Your task to perform on an android device: toggle priority inbox in the gmail app Image 0: 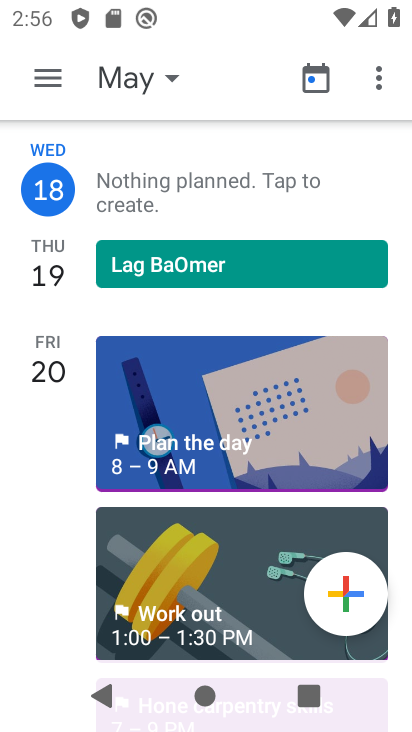
Step 0: press home button
Your task to perform on an android device: toggle priority inbox in the gmail app Image 1: 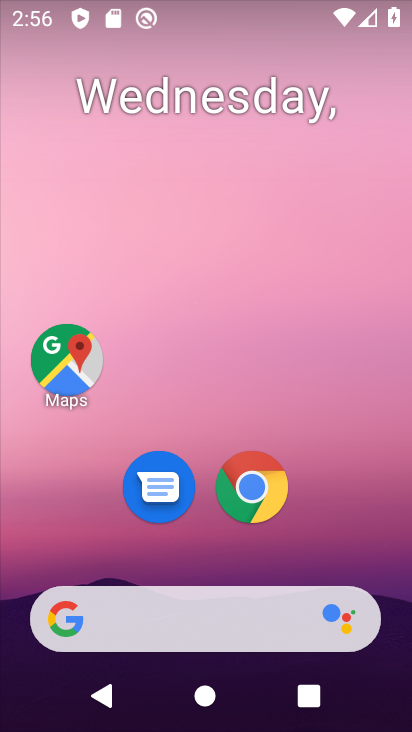
Step 1: drag from (366, 540) to (363, 187)
Your task to perform on an android device: toggle priority inbox in the gmail app Image 2: 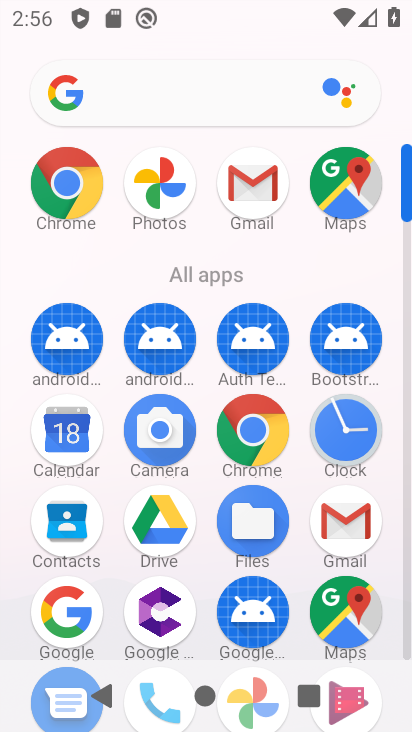
Step 2: click (340, 506)
Your task to perform on an android device: toggle priority inbox in the gmail app Image 3: 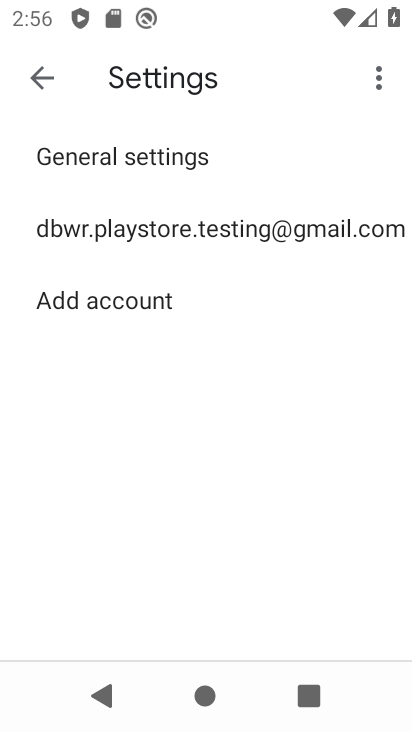
Step 3: click (281, 243)
Your task to perform on an android device: toggle priority inbox in the gmail app Image 4: 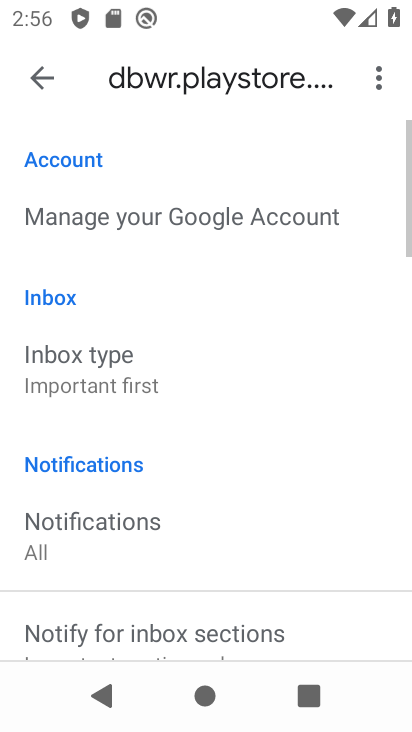
Step 4: drag from (301, 535) to (304, 406)
Your task to perform on an android device: toggle priority inbox in the gmail app Image 5: 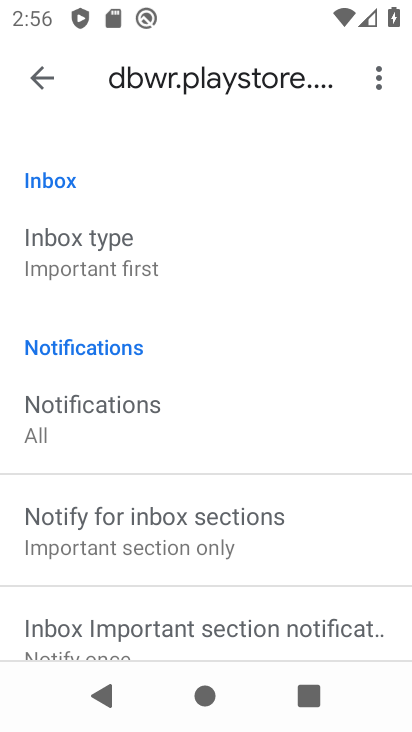
Step 5: drag from (297, 558) to (304, 407)
Your task to perform on an android device: toggle priority inbox in the gmail app Image 6: 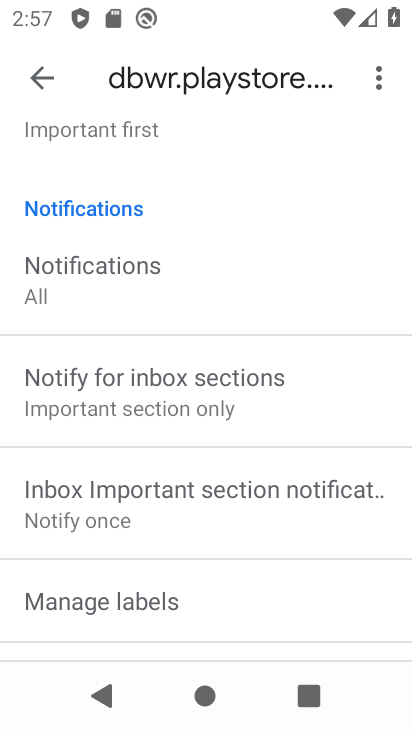
Step 6: drag from (328, 299) to (308, 475)
Your task to perform on an android device: toggle priority inbox in the gmail app Image 7: 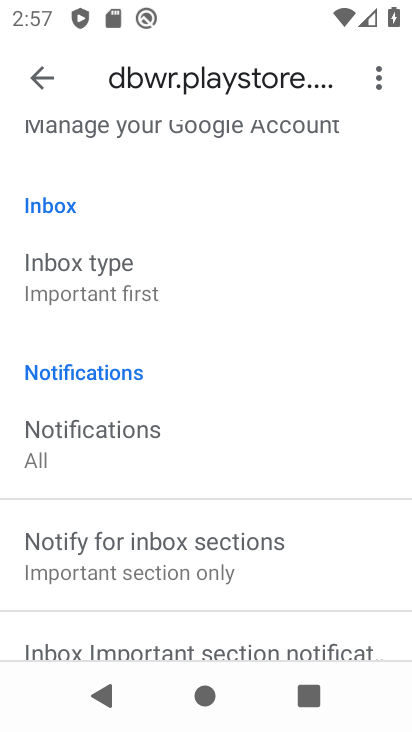
Step 7: drag from (317, 301) to (302, 492)
Your task to perform on an android device: toggle priority inbox in the gmail app Image 8: 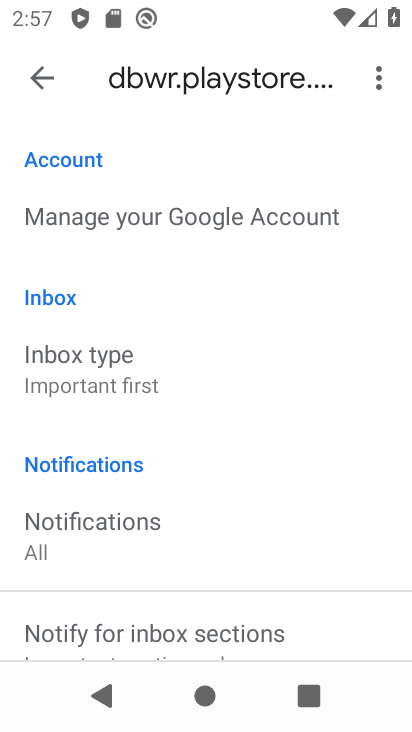
Step 8: click (130, 365)
Your task to perform on an android device: toggle priority inbox in the gmail app Image 9: 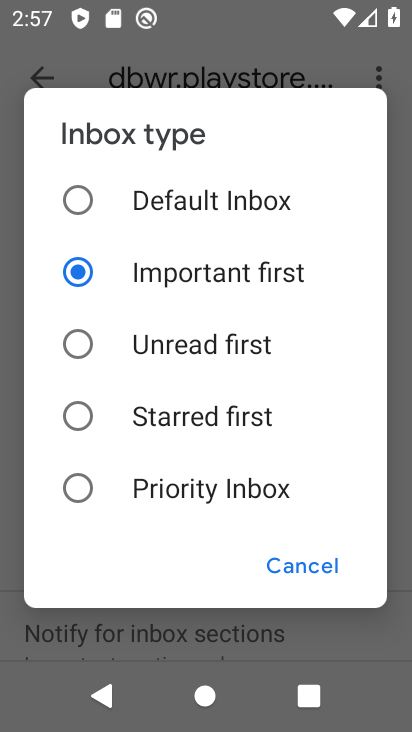
Step 9: click (252, 489)
Your task to perform on an android device: toggle priority inbox in the gmail app Image 10: 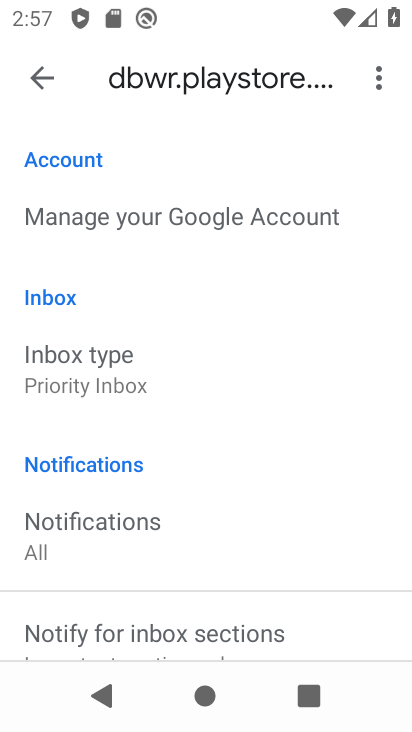
Step 10: task complete